Your task to perform on an android device: open a new tab in the chrome app Image 0: 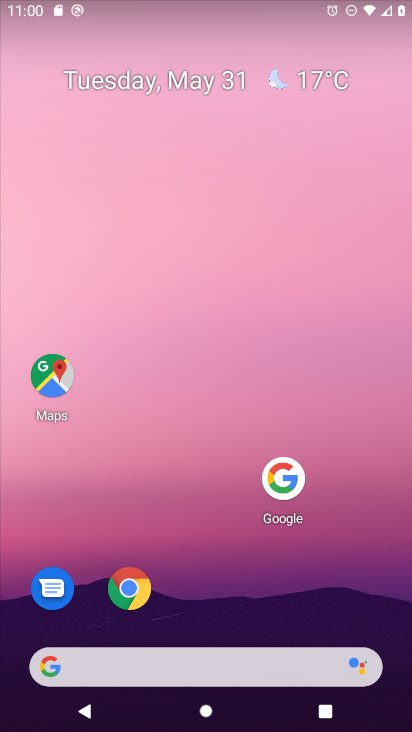
Step 0: click (138, 589)
Your task to perform on an android device: open a new tab in the chrome app Image 1: 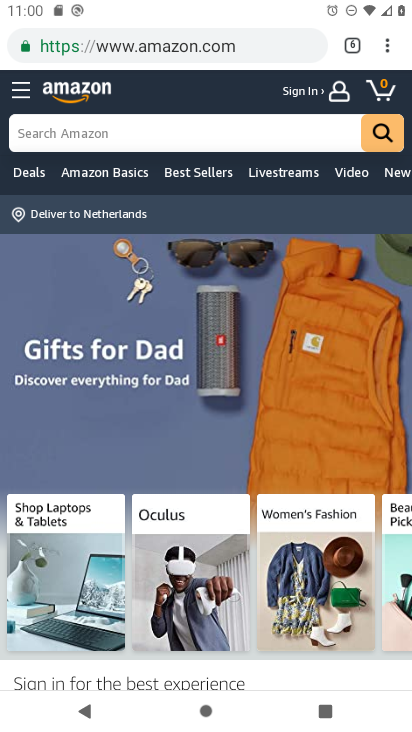
Step 1: task complete